Your task to perform on an android device: Open the map Image 0: 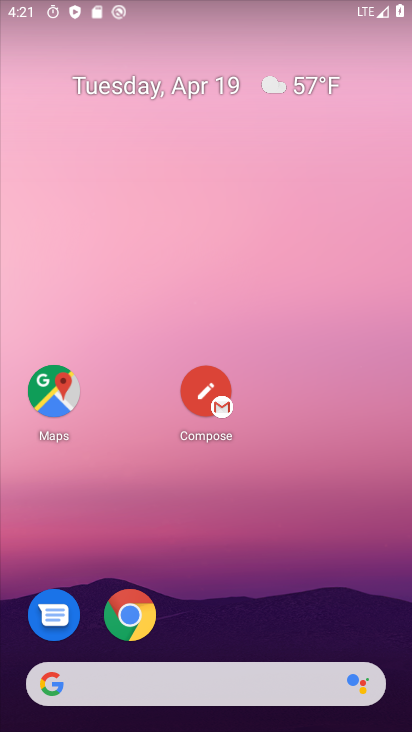
Step 0: drag from (265, 639) to (259, 34)
Your task to perform on an android device: Open the map Image 1: 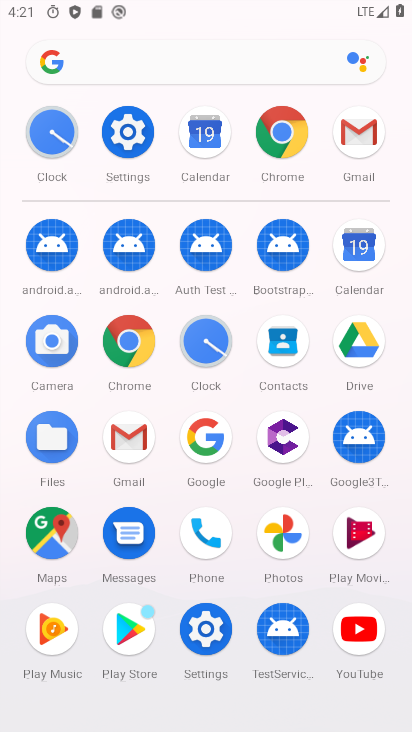
Step 1: click (61, 526)
Your task to perform on an android device: Open the map Image 2: 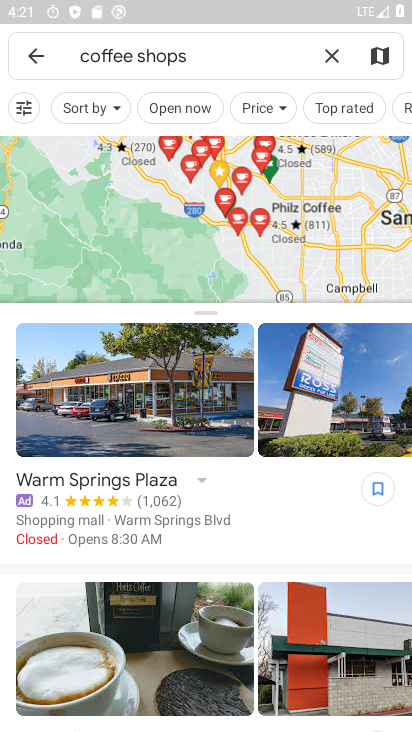
Step 2: click (31, 53)
Your task to perform on an android device: Open the map Image 3: 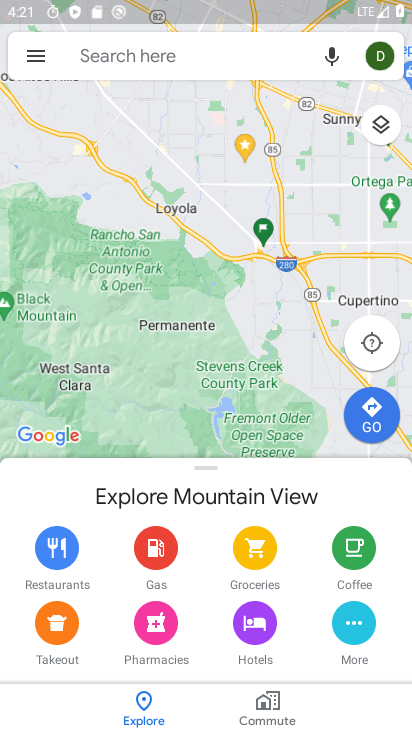
Step 3: task complete